Your task to perform on an android device: change the clock style Image 0: 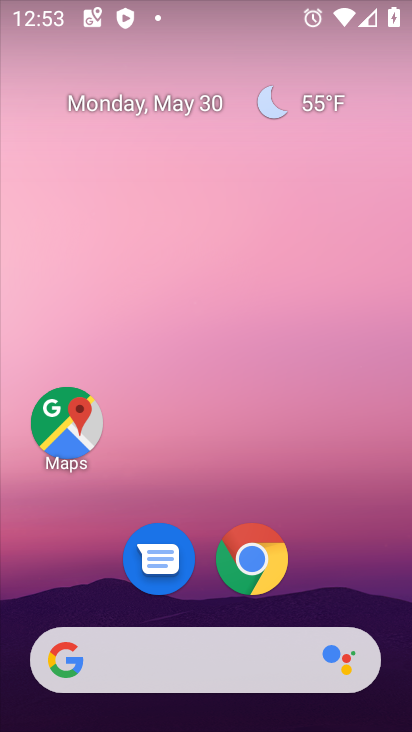
Step 0: drag from (64, 544) to (217, 110)
Your task to perform on an android device: change the clock style Image 1: 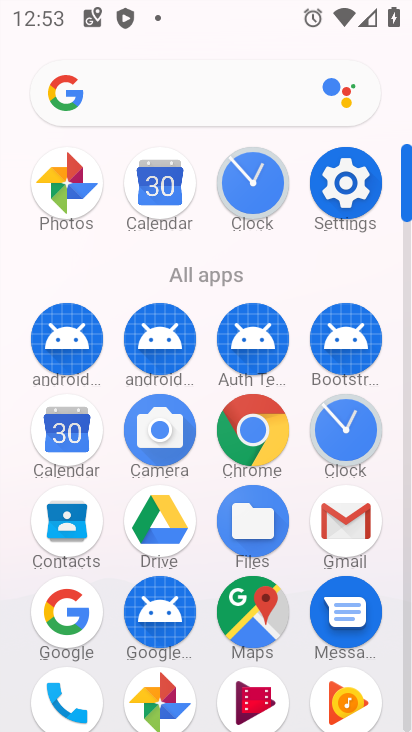
Step 1: click (257, 165)
Your task to perform on an android device: change the clock style Image 2: 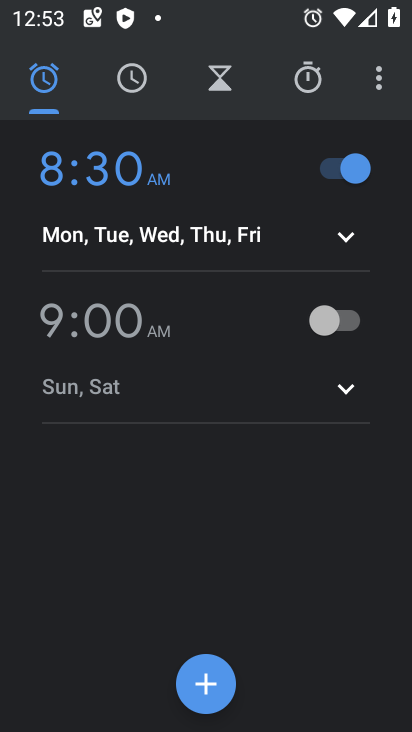
Step 2: click (380, 75)
Your task to perform on an android device: change the clock style Image 3: 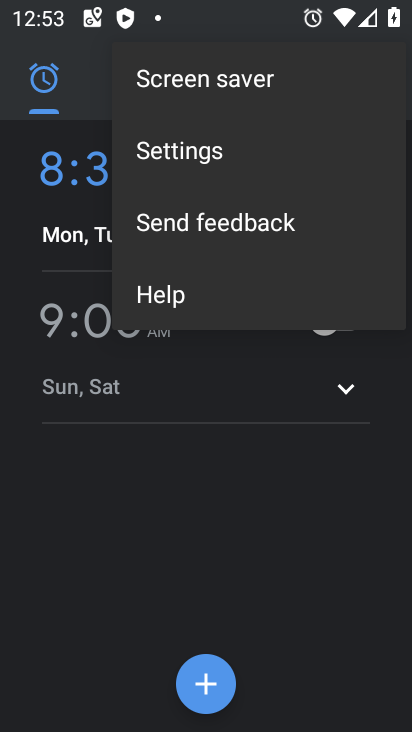
Step 3: click (199, 155)
Your task to perform on an android device: change the clock style Image 4: 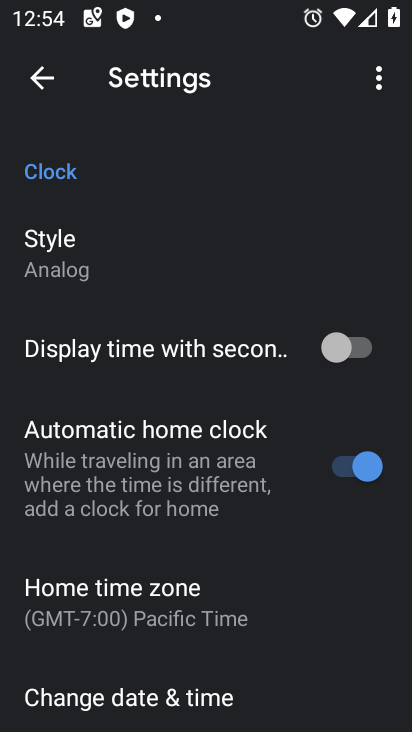
Step 4: click (102, 264)
Your task to perform on an android device: change the clock style Image 5: 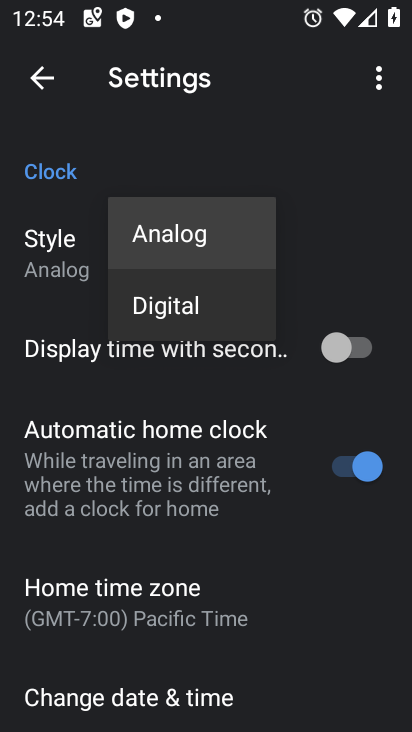
Step 5: click (178, 306)
Your task to perform on an android device: change the clock style Image 6: 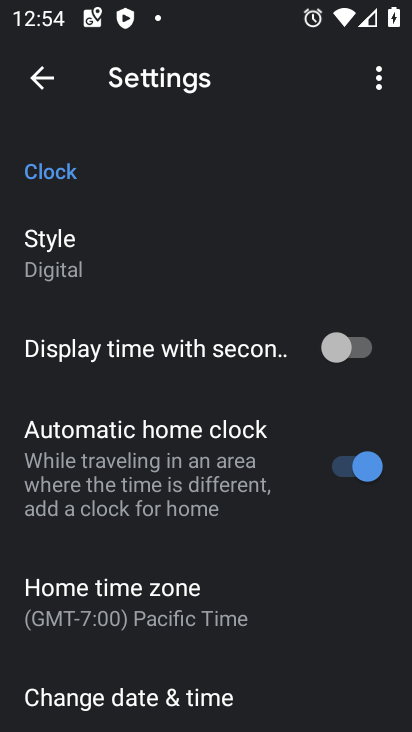
Step 6: task complete